Your task to perform on an android device: Open Google Chrome Image 0: 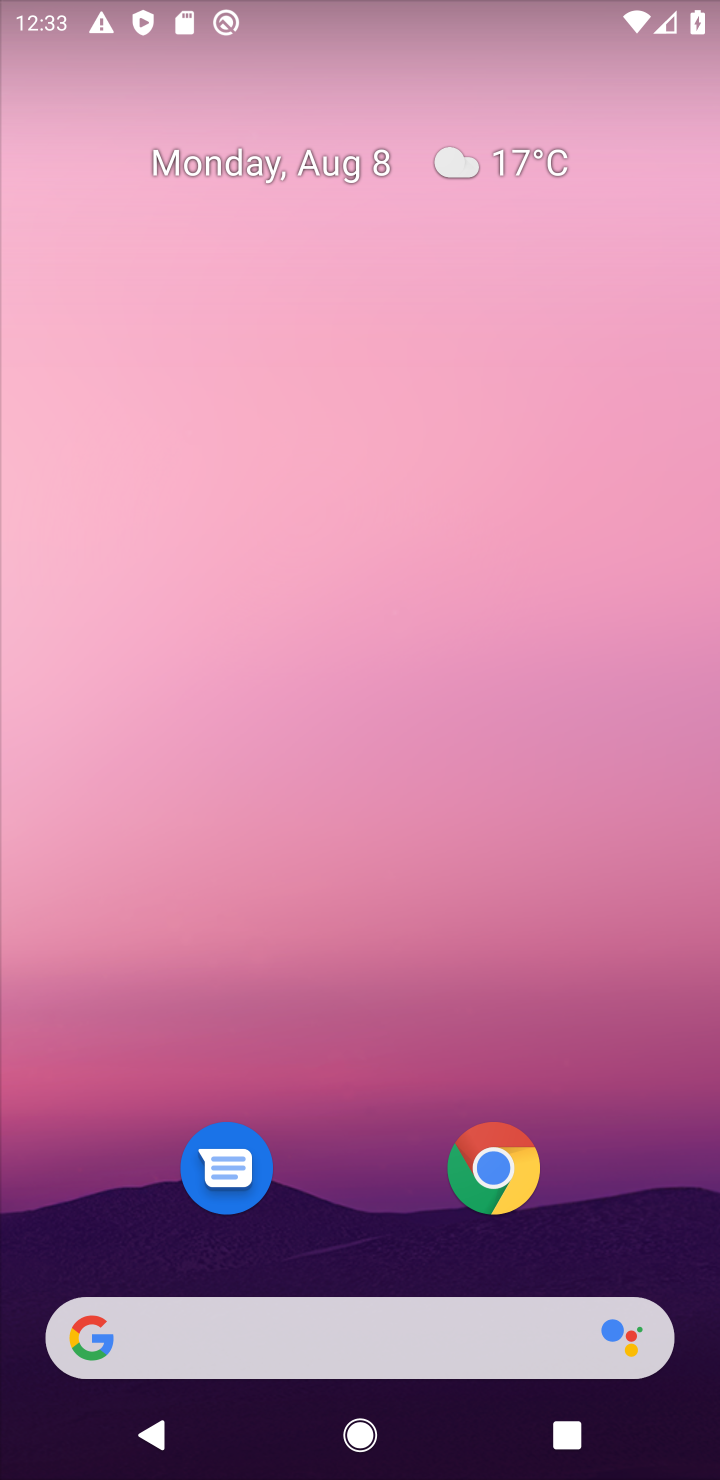
Step 0: click (529, 1152)
Your task to perform on an android device: Open Google Chrome Image 1: 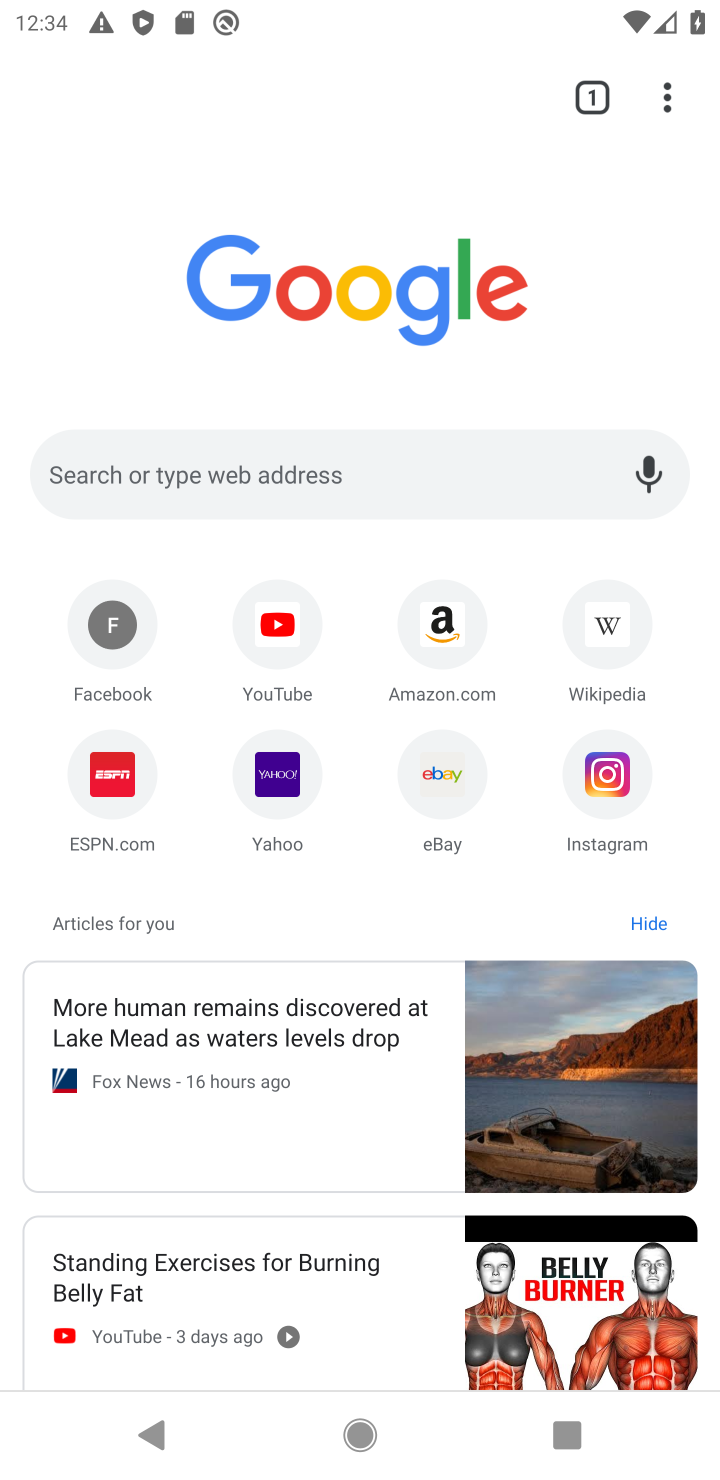
Step 1: task complete